Your task to perform on an android device: change the clock display to digital Image 0: 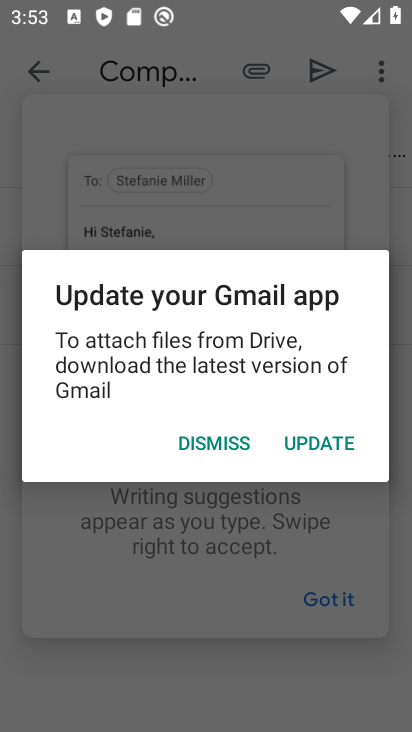
Step 0: press home button
Your task to perform on an android device: change the clock display to digital Image 1: 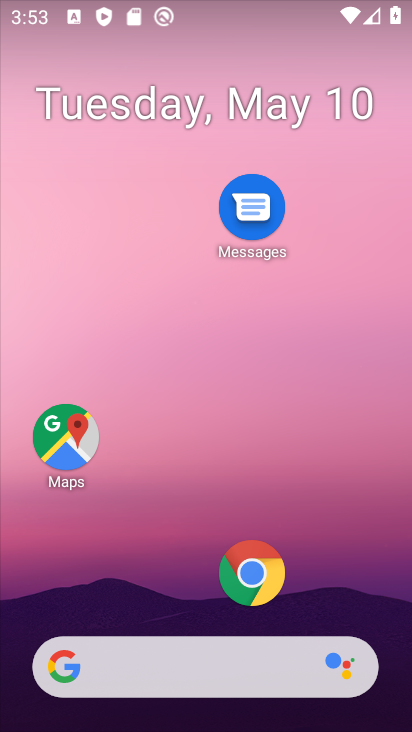
Step 1: drag from (172, 598) to (178, 274)
Your task to perform on an android device: change the clock display to digital Image 2: 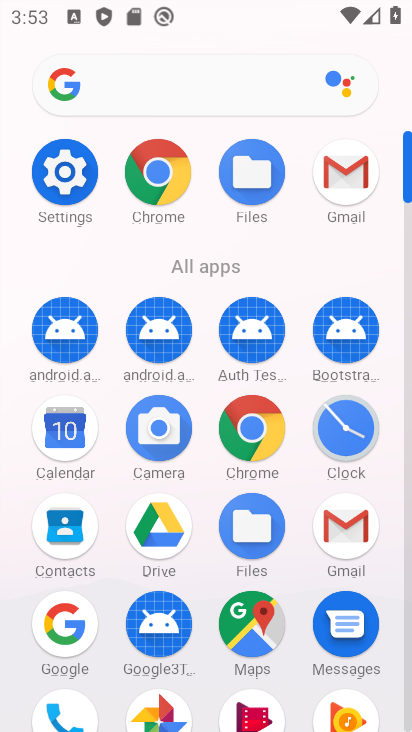
Step 2: click (346, 431)
Your task to perform on an android device: change the clock display to digital Image 3: 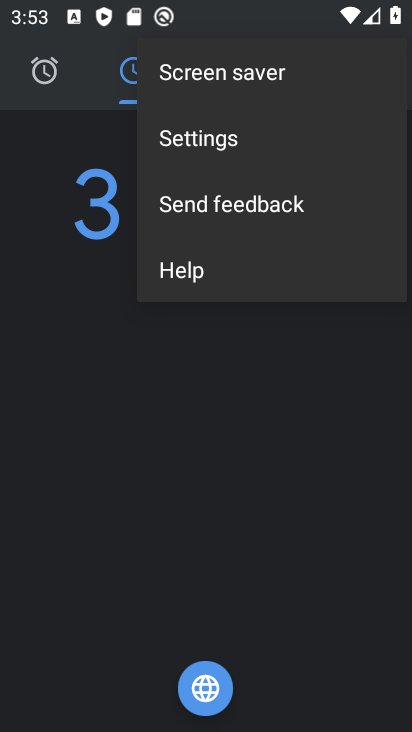
Step 3: click (244, 145)
Your task to perform on an android device: change the clock display to digital Image 4: 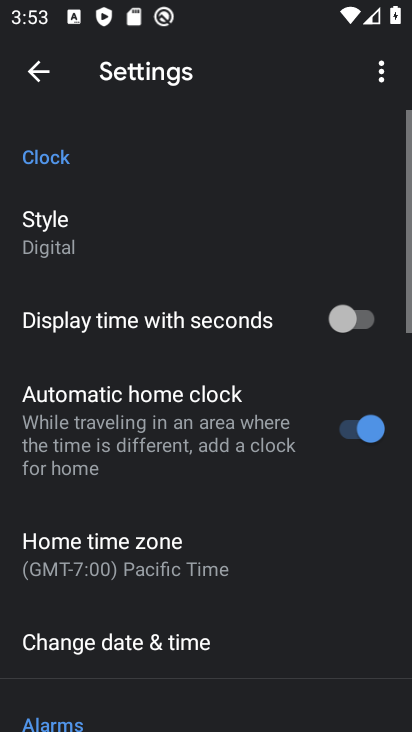
Step 4: click (151, 225)
Your task to perform on an android device: change the clock display to digital Image 5: 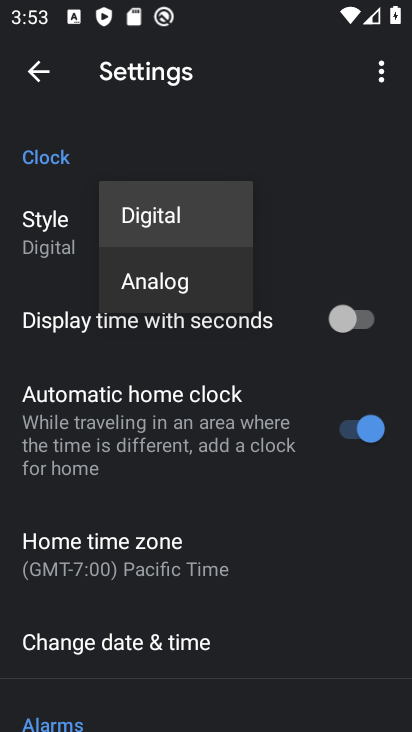
Step 5: task complete